Your task to perform on an android device: What's on my calendar tomorrow? Image 0: 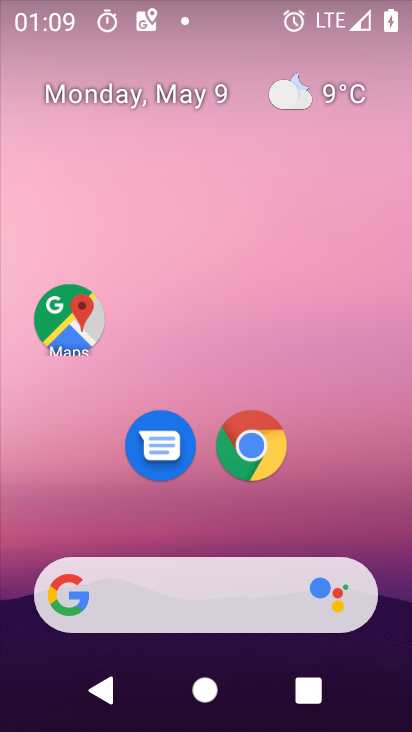
Step 0: drag from (356, 544) to (385, 3)
Your task to perform on an android device: What's on my calendar tomorrow? Image 1: 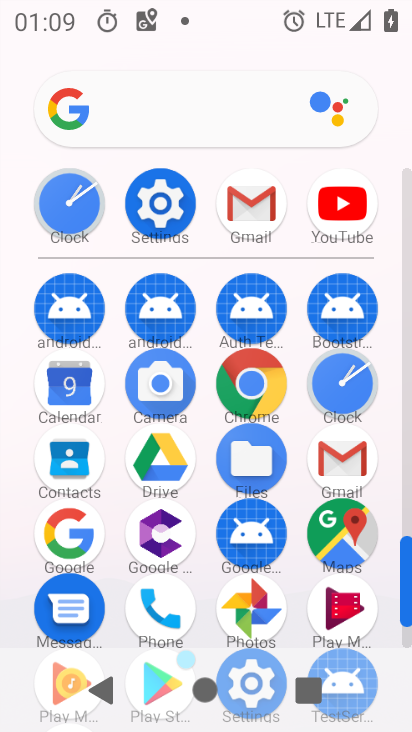
Step 1: click (68, 394)
Your task to perform on an android device: What's on my calendar tomorrow? Image 2: 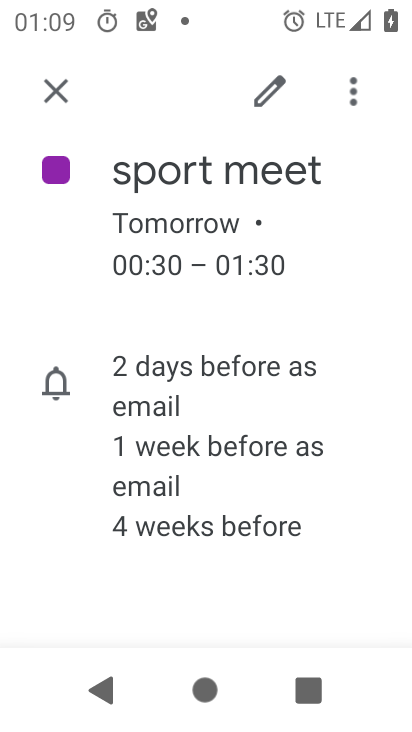
Step 2: click (53, 92)
Your task to perform on an android device: What's on my calendar tomorrow? Image 3: 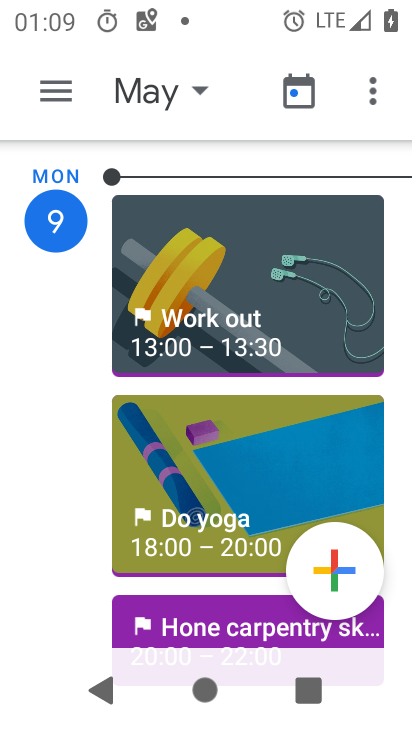
Step 3: drag from (207, 519) to (211, 200)
Your task to perform on an android device: What's on my calendar tomorrow? Image 4: 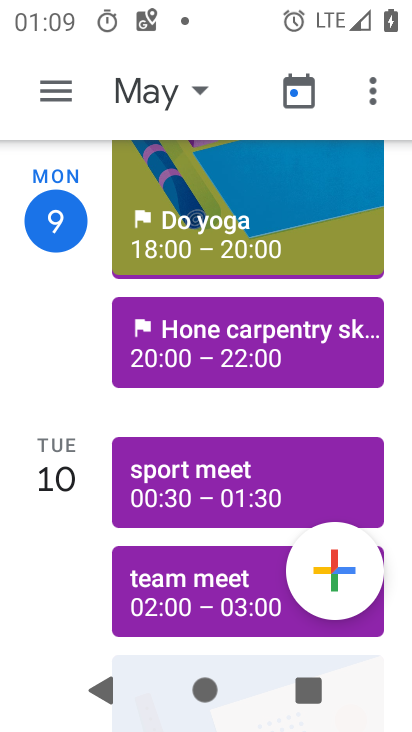
Step 4: click (189, 499)
Your task to perform on an android device: What's on my calendar tomorrow? Image 5: 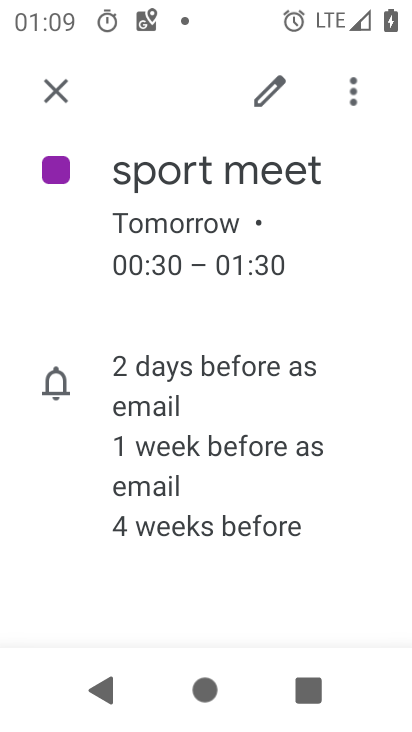
Step 5: task complete